Your task to perform on an android device: Open network settings Image 0: 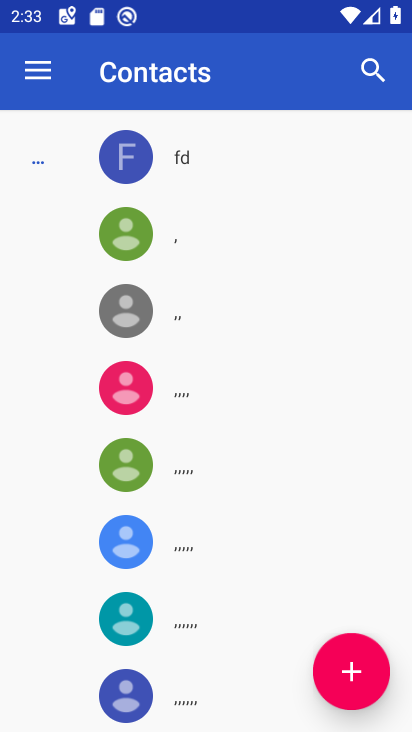
Step 0: press home button
Your task to perform on an android device: Open network settings Image 1: 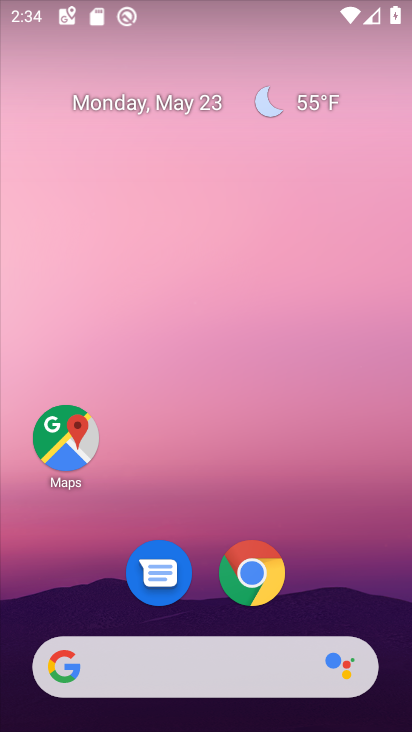
Step 1: drag from (334, 588) to (243, 62)
Your task to perform on an android device: Open network settings Image 2: 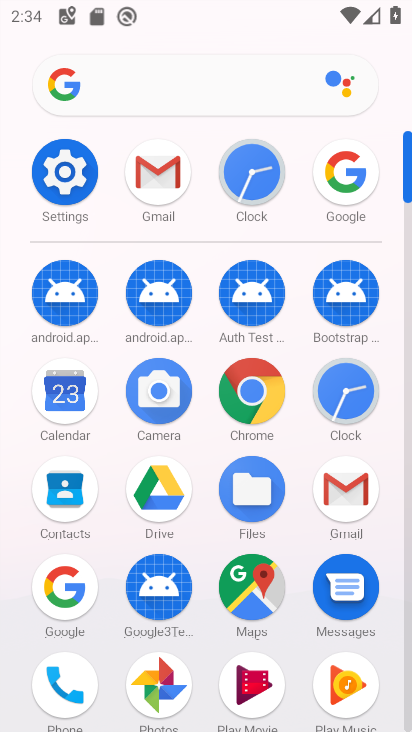
Step 2: click (69, 181)
Your task to perform on an android device: Open network settings Image 3: 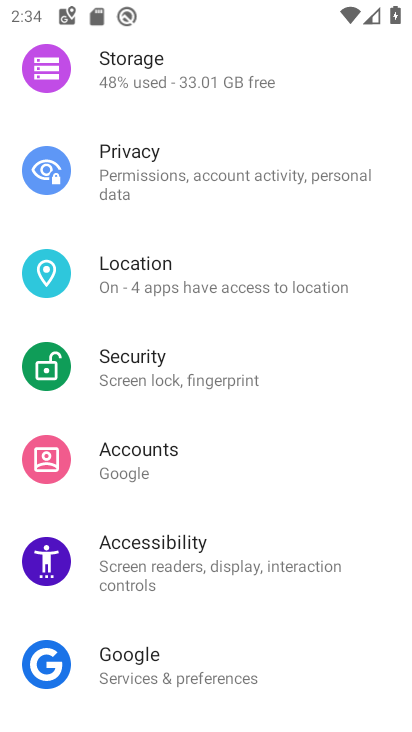
Step 3: drag from (245, 178) to (249, 454)
Your task to perform on an android device: Open network settings Image 4: 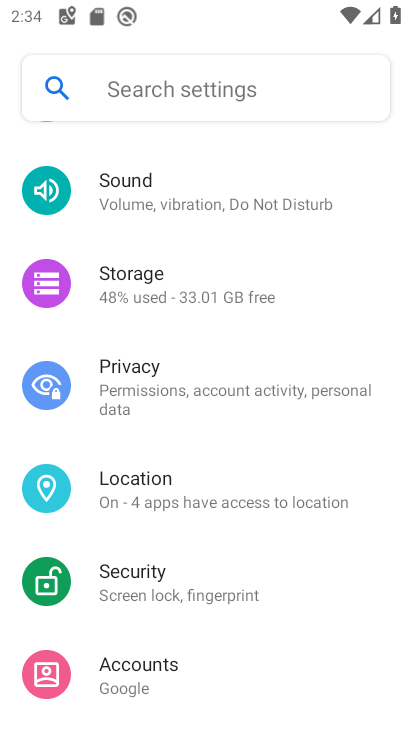
Step 4: drag from (250, 218) to (244, 601)
Your task to perform on an android device: Open network settings Image 5: 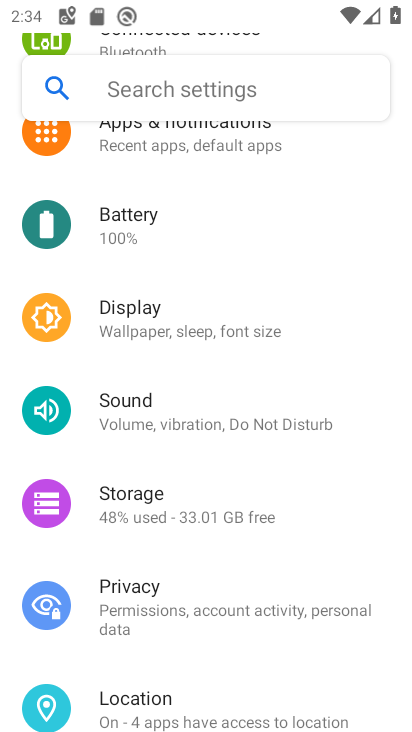
Step 5: drag from (245, 235) to (224, 602)
Your task to perform on an android device: Open network settings Image 6: 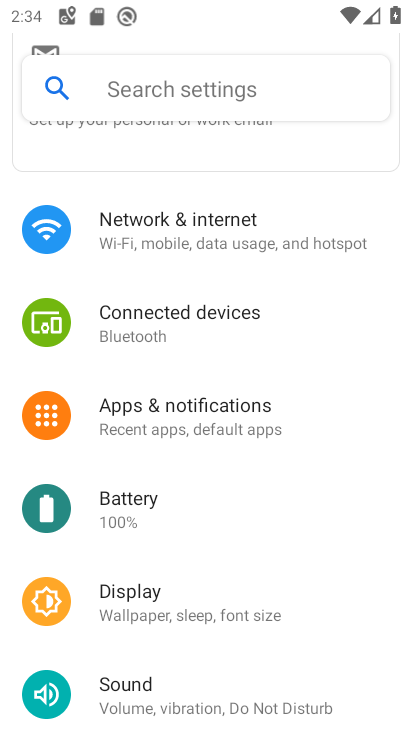
Step 6: click (205, 223)
Your task to perform on an android device: Open network settings Image 7: 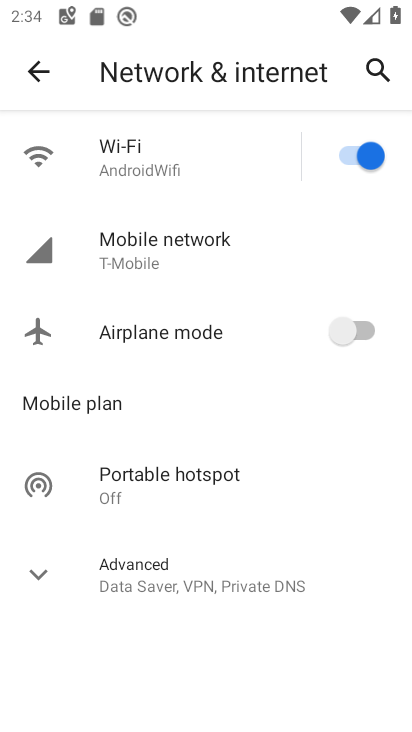
Step 7: task complete